Your task to perform on an android device: clear history in the chrome app Image 0: 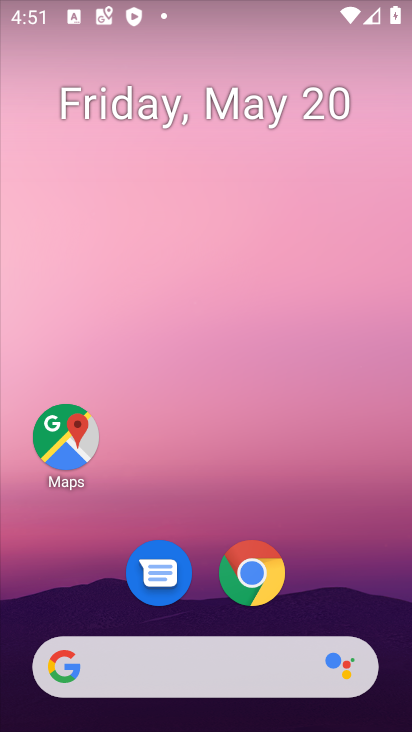
Step 0: click (248, 571)
Your task to perform on an android device: clear history in the chrome app Image 1: 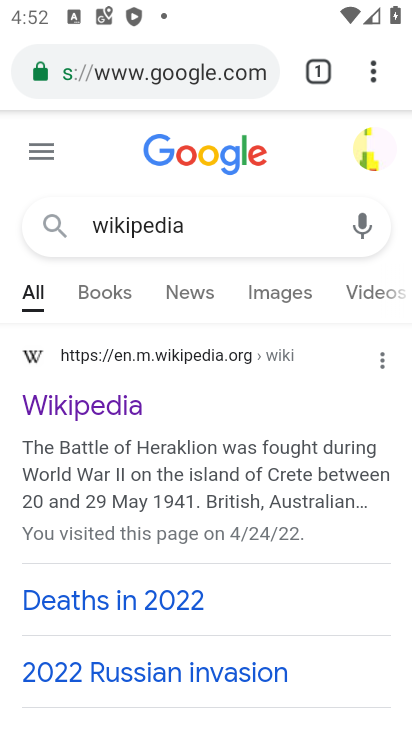
Step 1: click (380, 81)
Your task to perform on an android device: clear history in the chrome app Image 2: 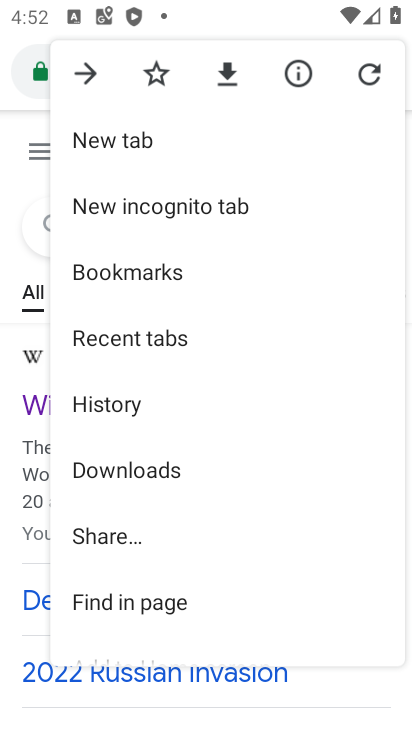
Step 2: click (134, 413)
Your task to perform on an android device: clear history in the chrome app Image 3: 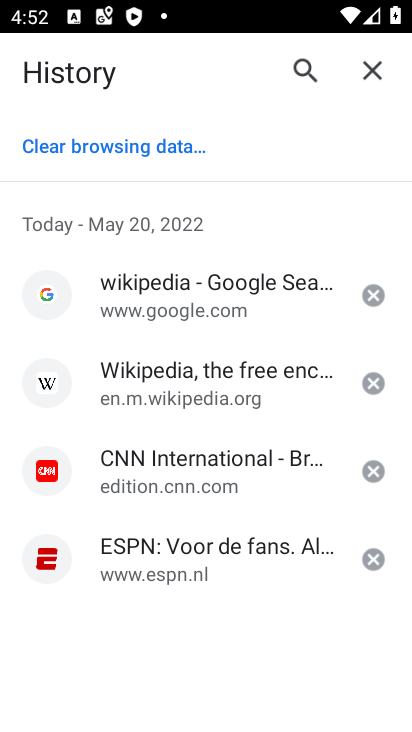
Step 3: click (110, 168)
Your task to perform on an android device: clear history in the chrome app Image 4: 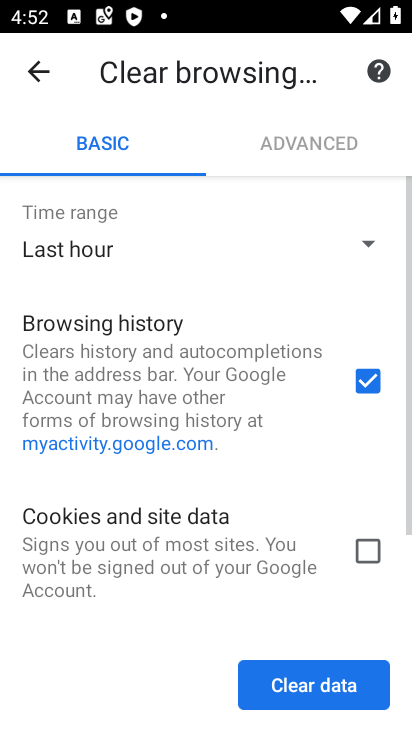
Step 4: click (307, 682)
Your task to perform on an android device: clear history in the chrome app Image 5: 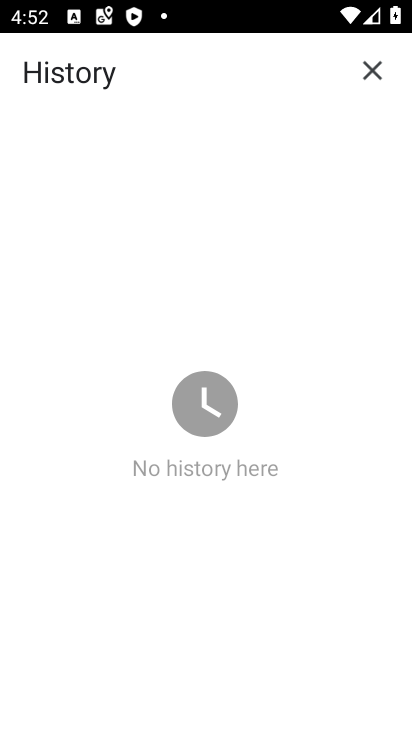
Step 5: task complete